Your task to perform on an android device: What's on my calendar tomorrow? Image 0: 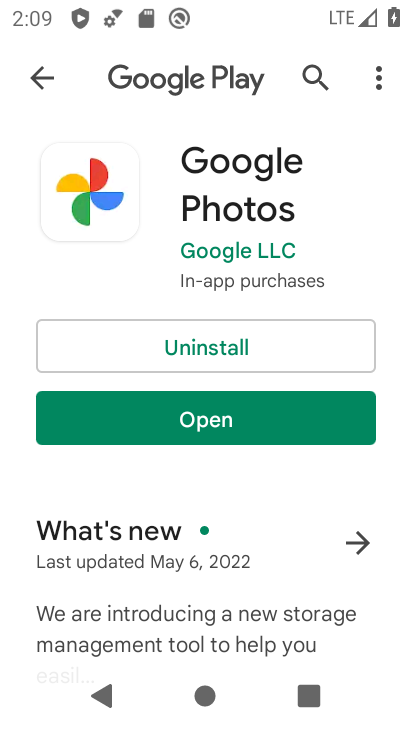
Step 0: click (277, 422)
Your task to perform on an android device: What's on my calendar tomorrow? Image 1: 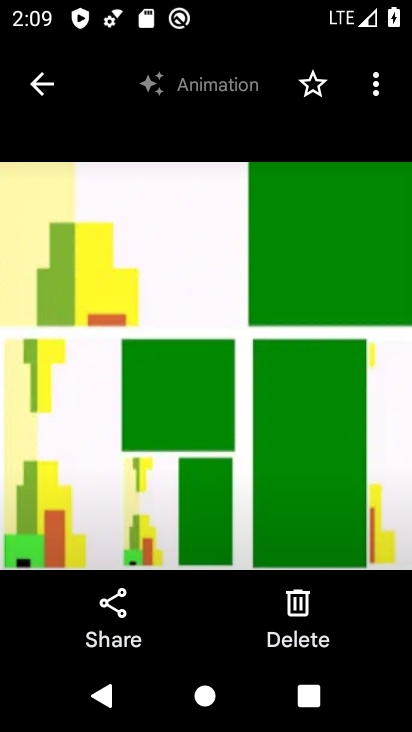
Step 1: press home button
Your task to perform on an android device: What's on my calendar tomorrow? Image 2: 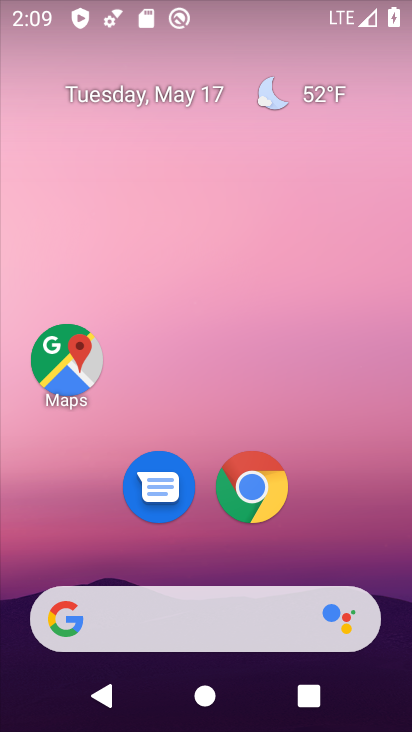
Step 2: drag from (355, 435) to (305, 240)
Your task to perform on an android device: What's on my calendar tomorrow? Image 3: 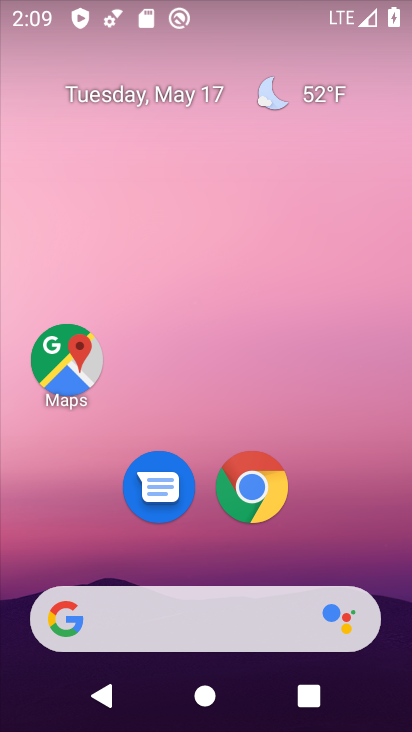
Step 3: drag from (396, 630) to (279, 231)
Your task to perform on an android device: What's on my calendar tomorrow? Image 4: 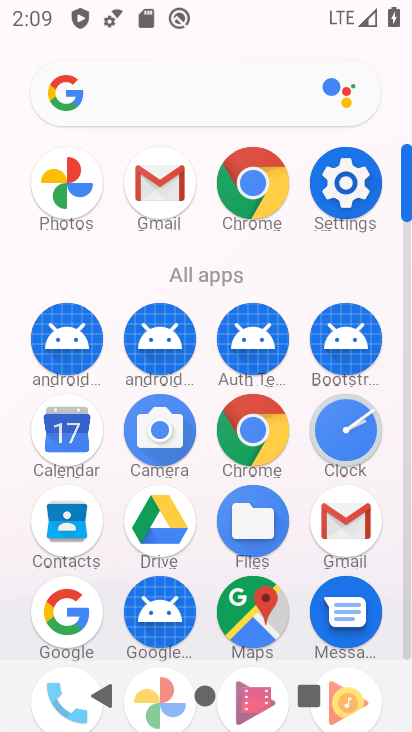
Step 4: click (51, 426)
Your task to perform on an android device: What's on my calendar tomorrow? Image 5: 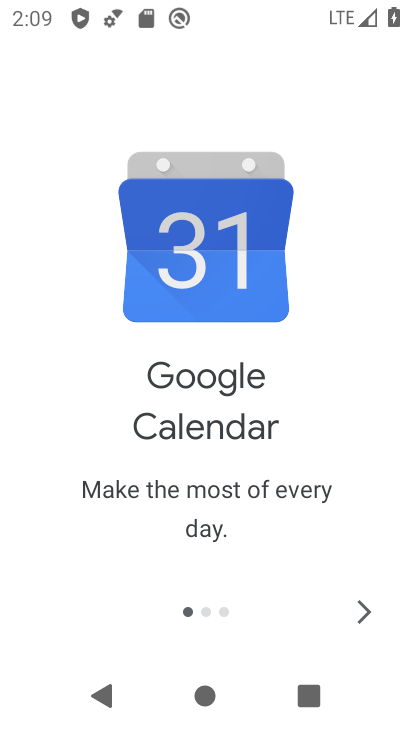
Step 5: click (360, 614)
Your task to perform on an android device: What's on my calendar tomorrow? Image 6: 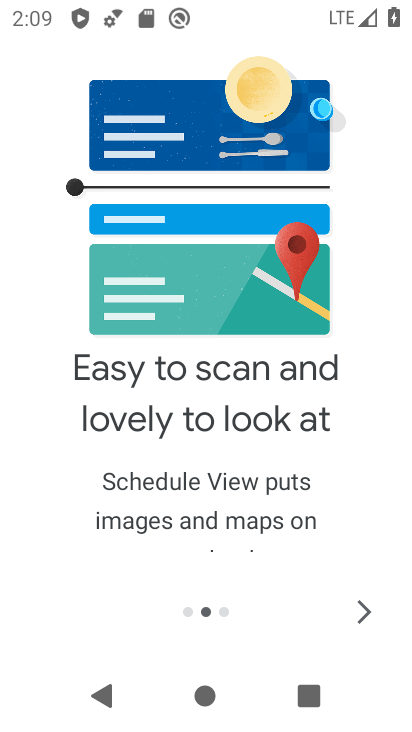
Step 6: click (360, 614)
Your task to perform on an android device: What's on my calendar tomorrow? Image 7: 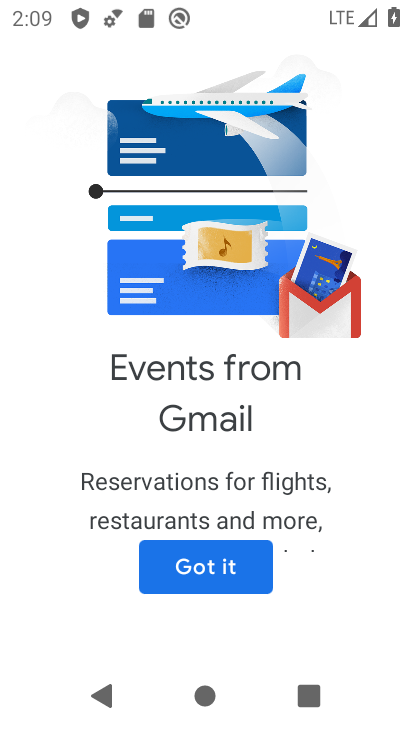
Step 7: click (360, 614)
Your task to perform on an android device: What's on my calendar tomorrow? Image 8: 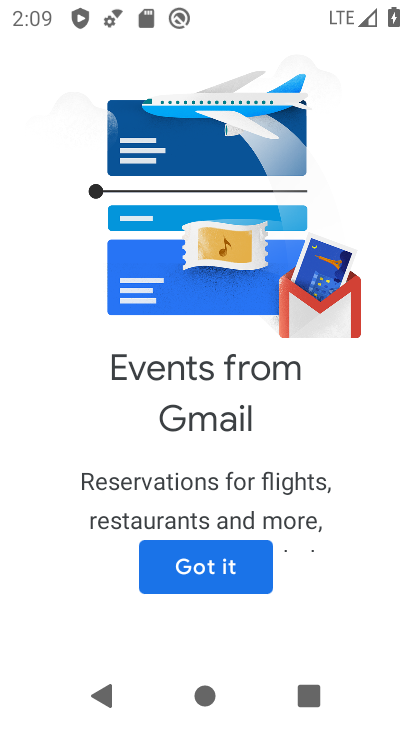
Step 8: click (234, 585)
Your task to perform on an android device: What's on my calendar tomorrow? Image 9: 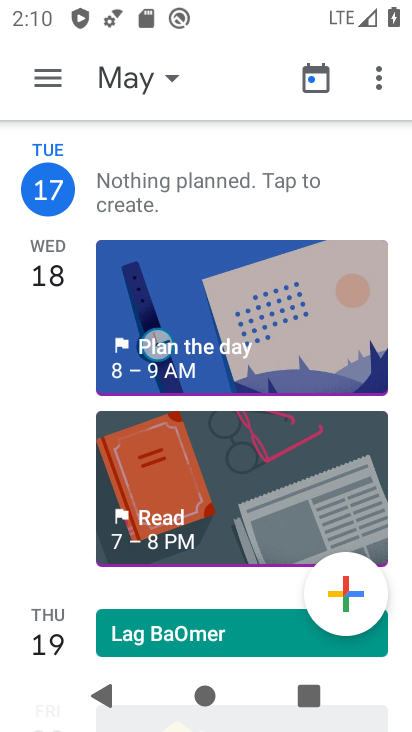
Step 9: click (67, 177)
Your task to perform on an android device: What's on my calendar tomorrow? Image 10: 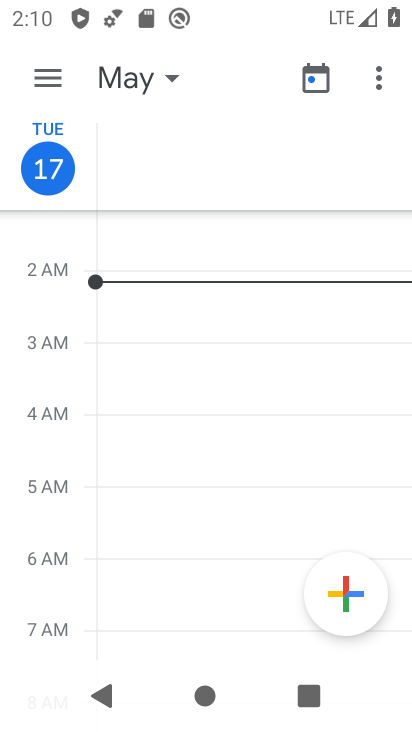
Step 10: task complete